Your task to perform on an android device: change notification settings in the gmail app Image 0: 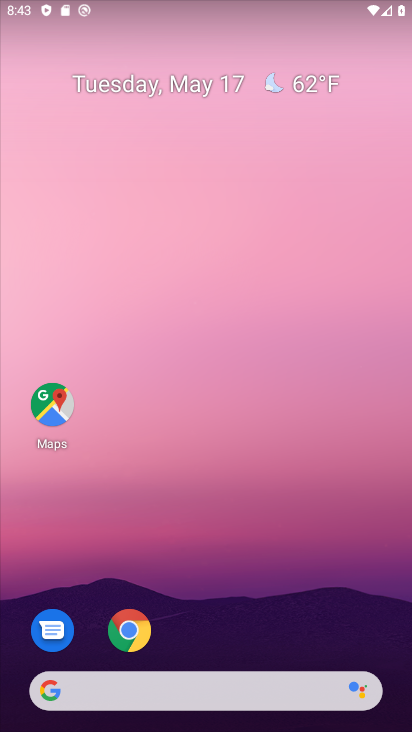
Step 0: drag from (224, 601) to (147, 373)
Your task to perform on an android device: change notification settings in the gmail app Image 1: 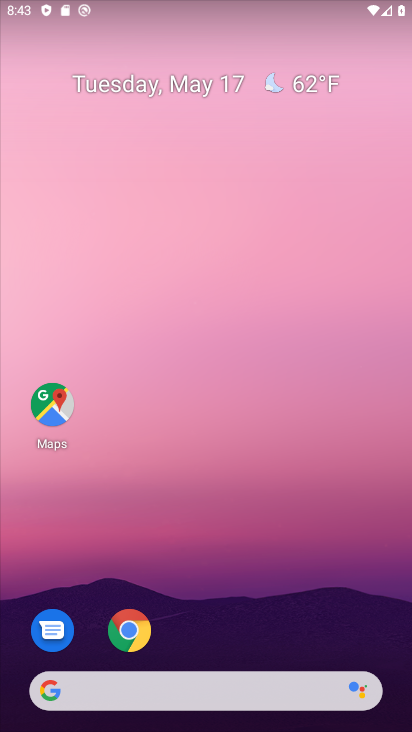
Step 1: drag from (214, 636) to (197, 170)
Your task to perform on an android device: change notification settings in the gmail app Image 2: 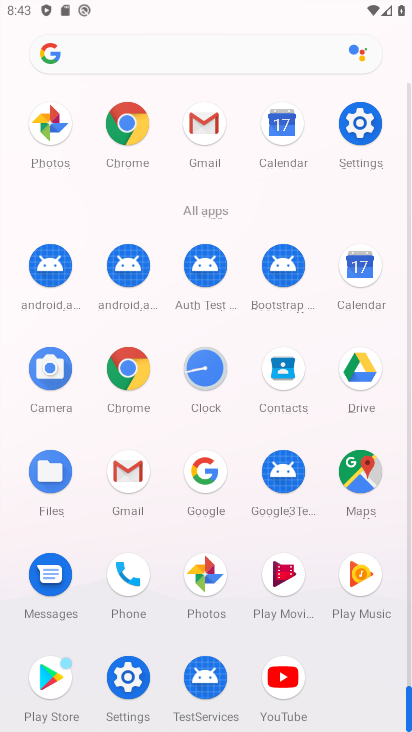
Step 2: click (213, 134)
Your task to perform on an android device: change notification settings in the gmail app Image 3: 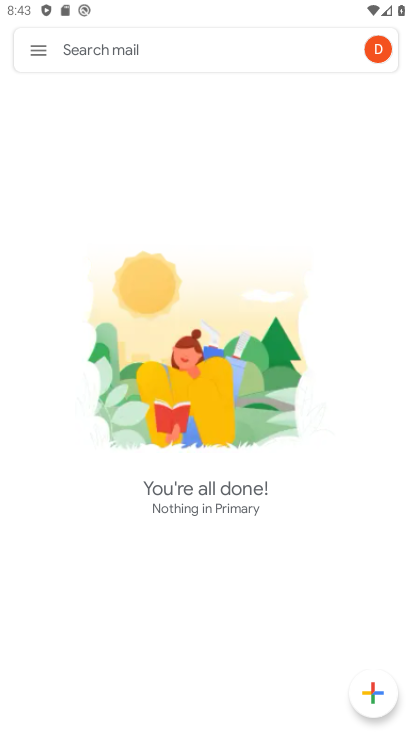
Step 3: click (40, 52)
Your task to perform on an android device: change notification settings in the gmail app Image 4: 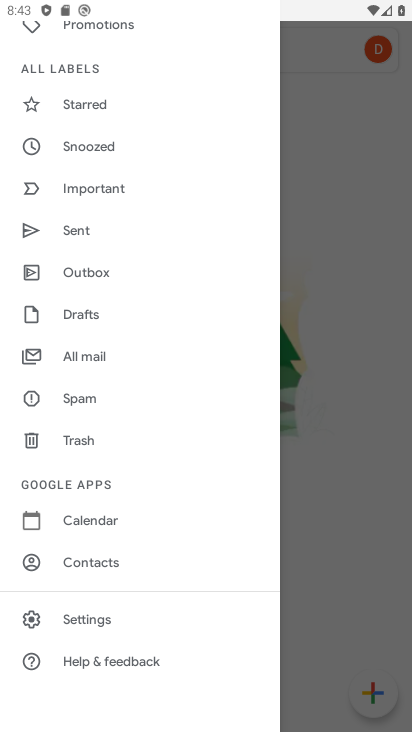
Step 4: click (83, 626)
Your task to perform on an android device: change notification settings in the gmail app Image 5: 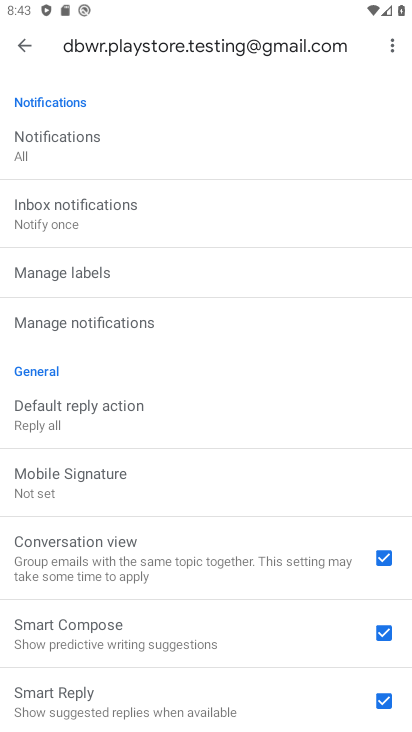
Step 5: click (66, 162)
Your task to perform on an android device: change notification settings in the gmail app Image 6: 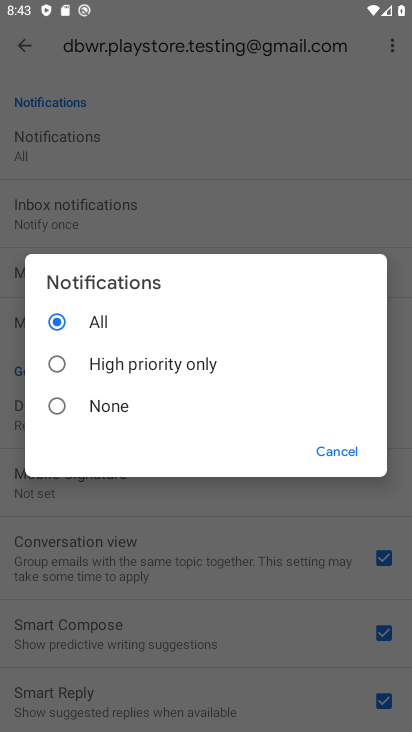
Step 6: click (60, 406)
Your task to perform on an android device: change notification settings in the gmail app Image 7: 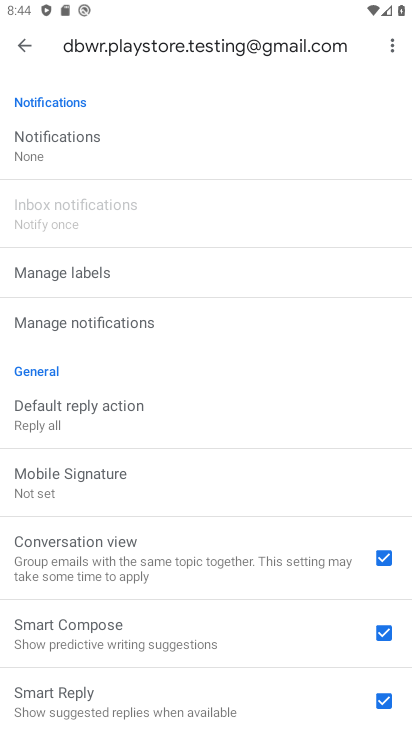
Step 7: task complete